Your task to perform on an android device: turn off wifi Image 0: 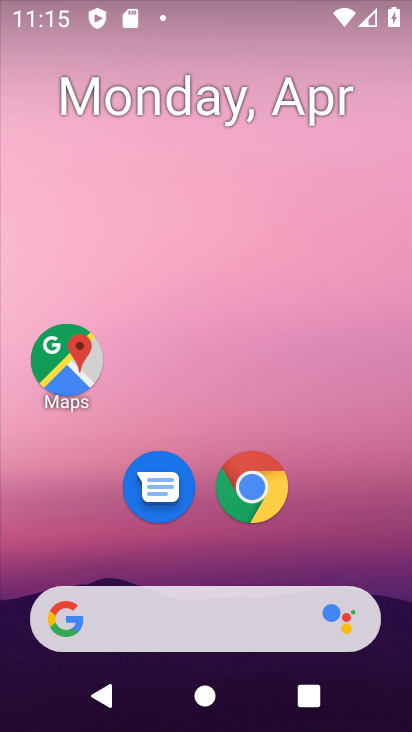
Step 0: drag from (391, 531) to (292, 207)
Your task to perform on an android device: turn off wifi Image 1: 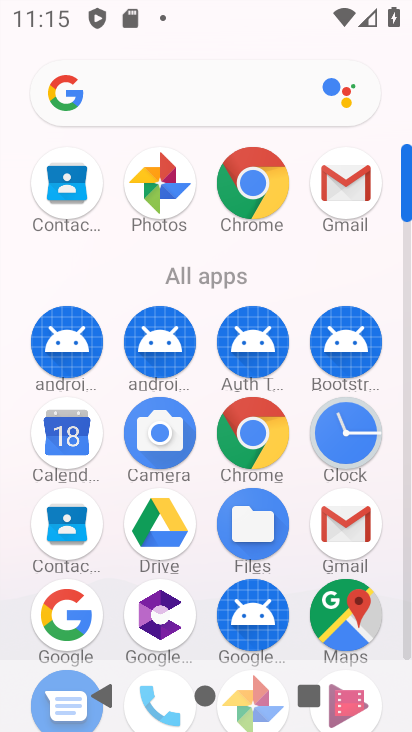
Step 1: click (409, 654)
Your task to perform on an android device: turn off wifi Image 2: 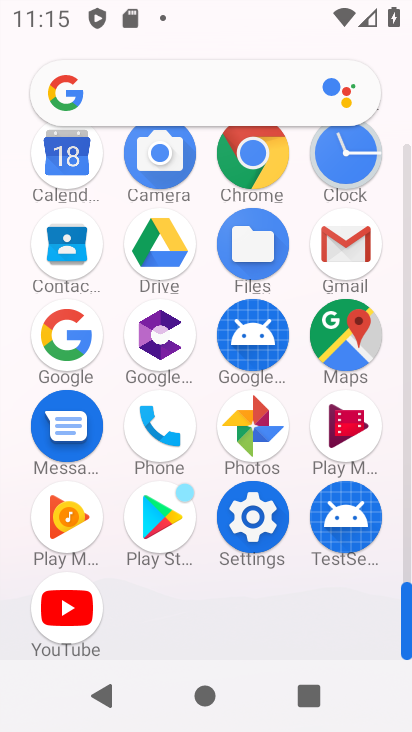
Step 2: click (257, 539)
Your task to perform on an android device: turn off wifi Image 3: 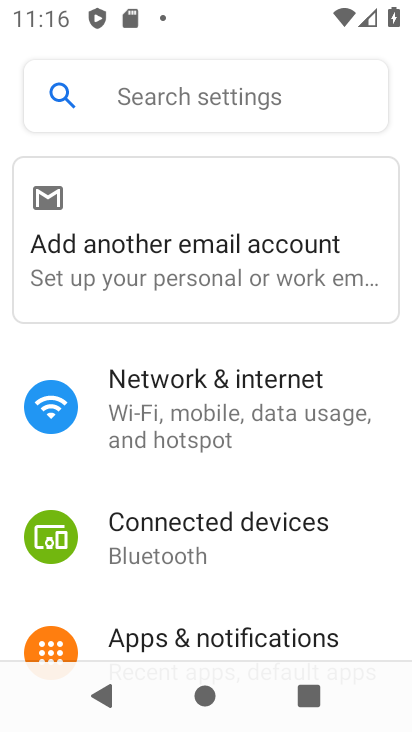
Step 3: click (268, 406)
Your task to perform on an android device: turn off wifi Image 4: 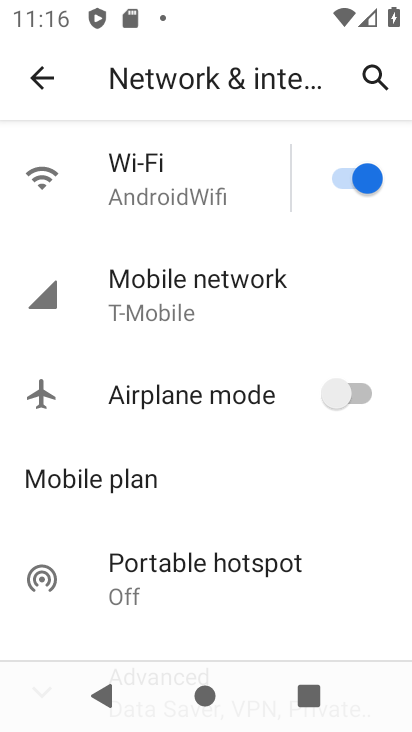
Step 4: click (358, 184)
Your task to perform on an android device: turn off wifi Image 5: 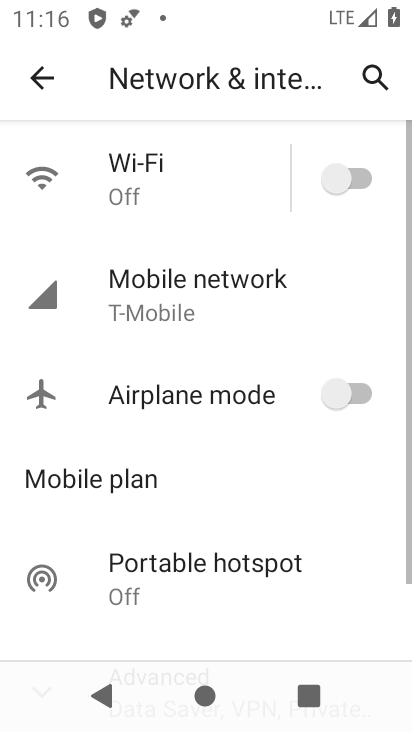
Step 5: task complete